Your task to perform on an android device: turn off smart reply in the gmail app Image 0: 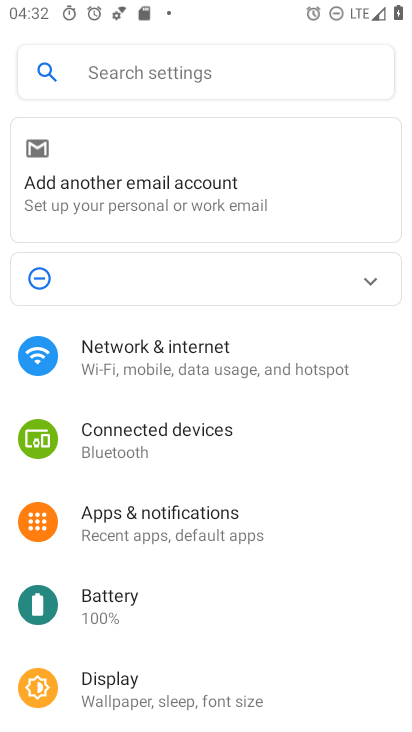
Step 0: press home button
Your task to perform on an android device: turn off smart reply in the gmail app Image 1: 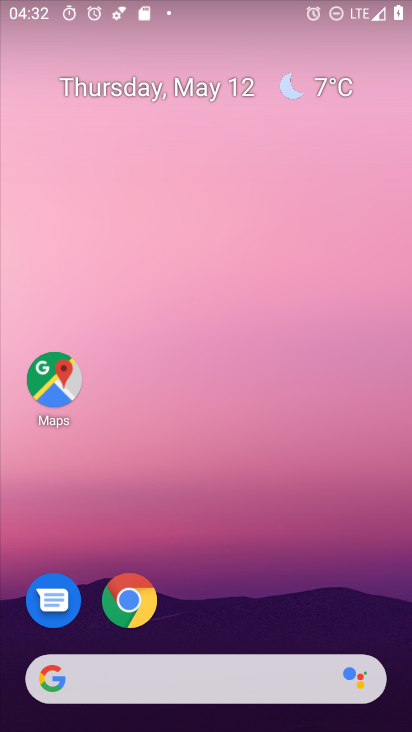
Step 1: drag from (206, 725) to (207, 233)
Your task to perform on an android device: turn off smart reply in the gmail app Image 2: 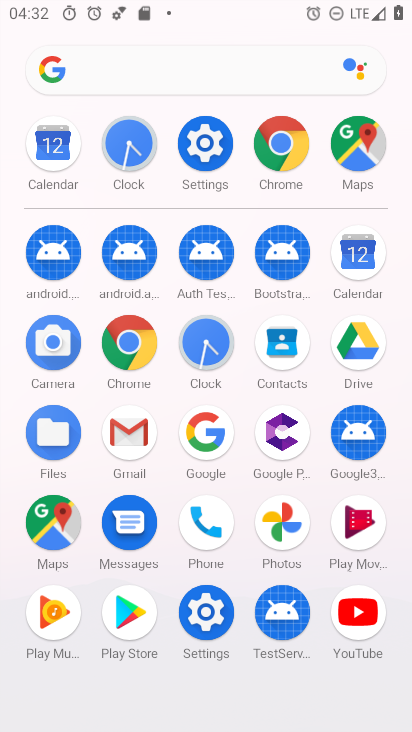
Step 2: click (130, 426)
Your task to perform on an android device: turn off smart reply in the gmail app Image 3: 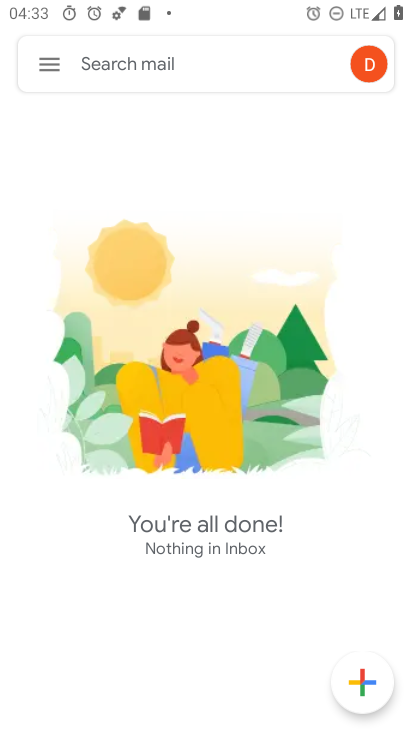
Step 3: click (44, 64)
Your task to perform on an android device: turn off smart reply in the gmail app Image 4: 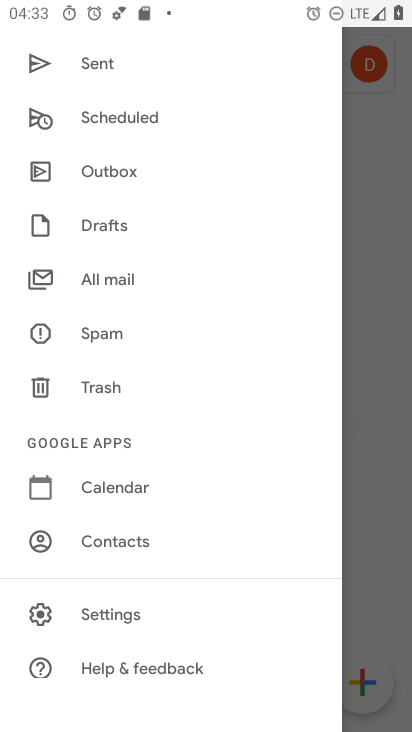
Step 4: click (116, 609)
Your task to perform on an android device: turn off smart reply in the gmail app Image 5: 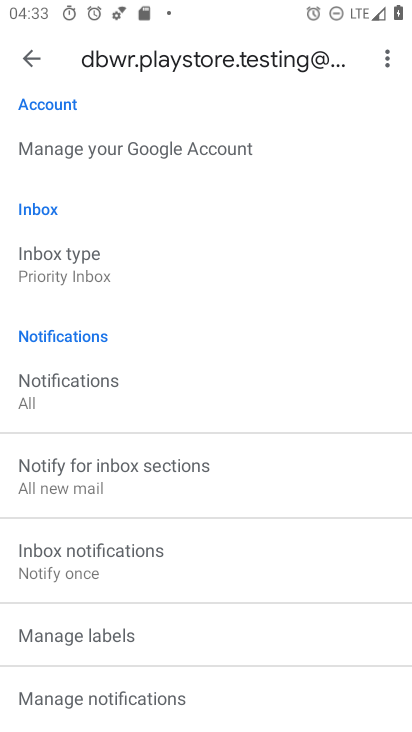
Step 5: task complete